Your task to perform on an android device: open device folders in google photos Image 0: 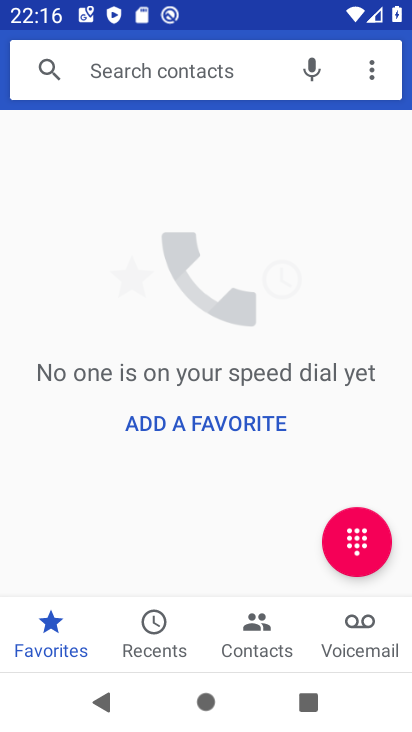
Step 0: press home button
Your task to perform on an android device: open device folders in google photos Image 1: 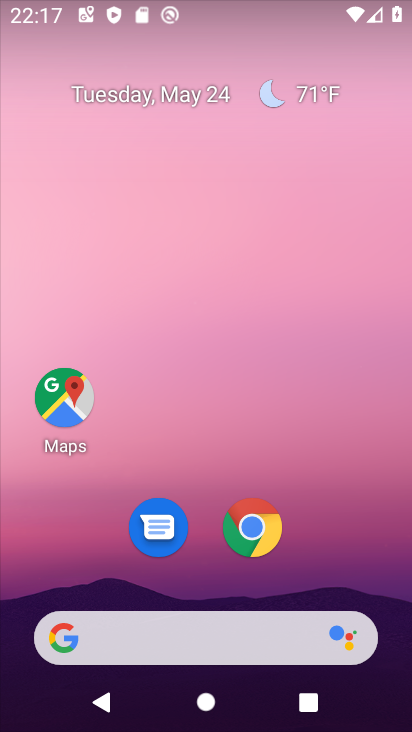
Step 1: drag from (316, 580) to (278, 51)
Your task to perform on an android device: open device folders in google photos Image 2: 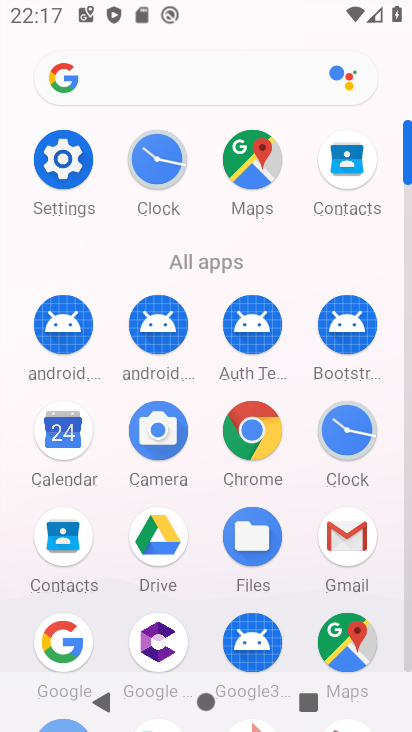
Step 2: drag from (193, 592) to (187, 252)
Your task to perform on an android device: open device folders in google photos Image 3: 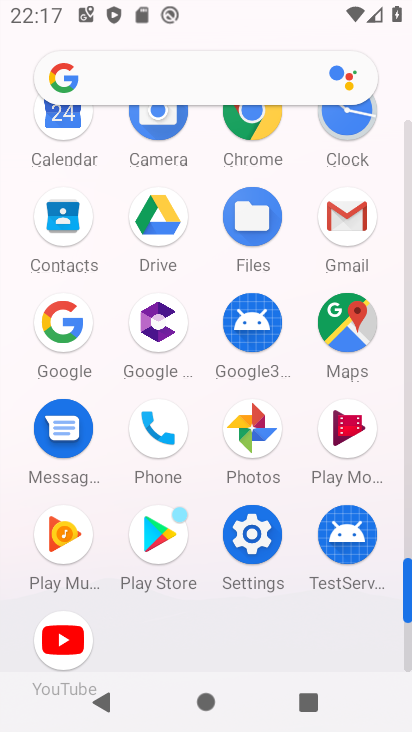
Step 3: click (249, 419)
Your task to perform on an android device: open device folders in google photos Image 4: 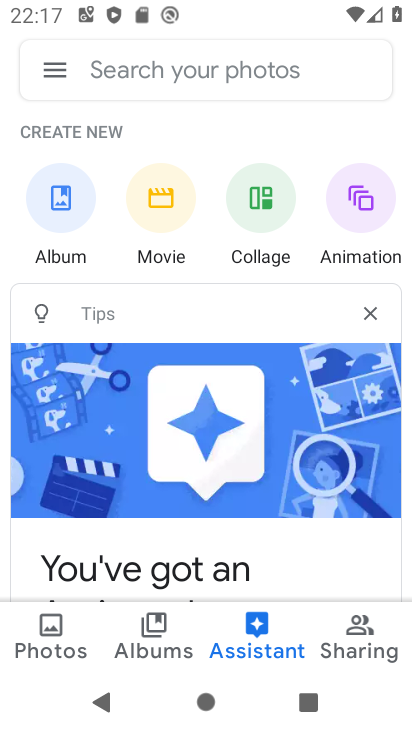
Step 4: click (41, 70)
Your task to perform on an android device: open device folders in google photos Image 5: 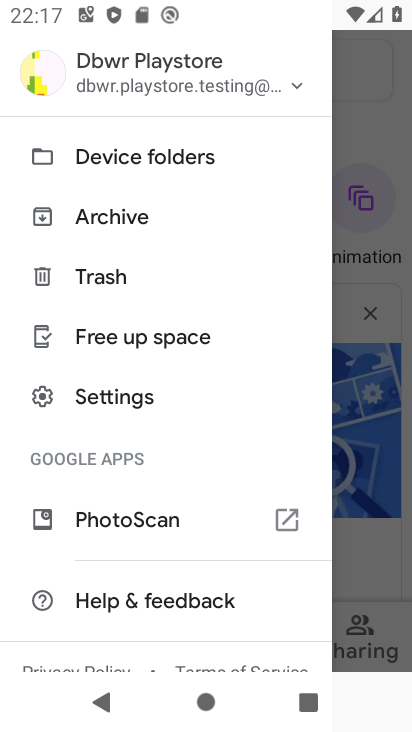
Step 5: click (131, 141)
Your task to perform on an android device: open device folders in google photos Image 6: 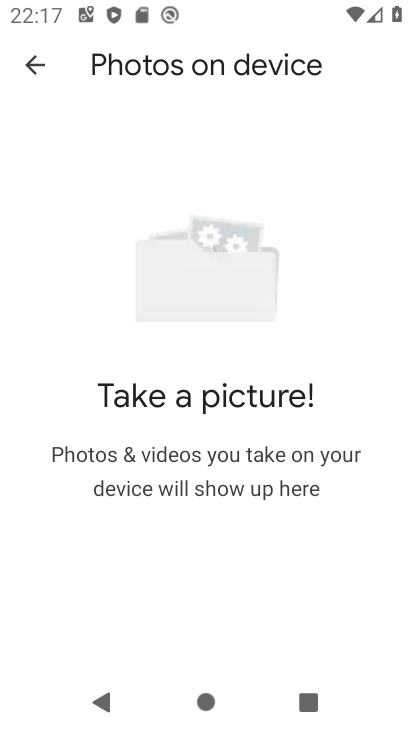
Step 6: task complete